Your task to perform on an android device: Show me recent news Image 0: 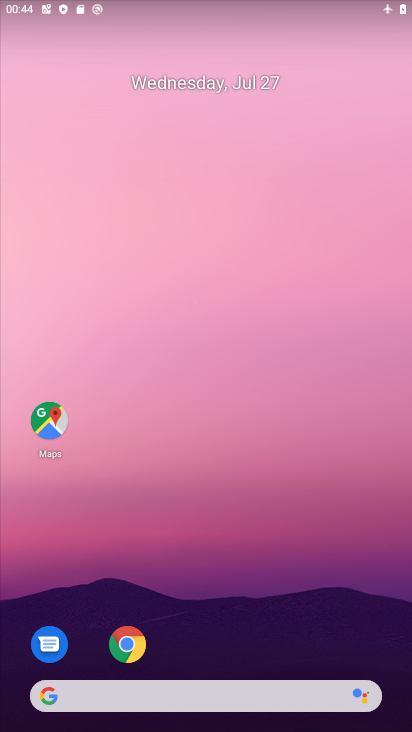
Step 0: drag from (192, 471) to (218, 263)
Your task to perform on an android device: Show me recent news Image 1: 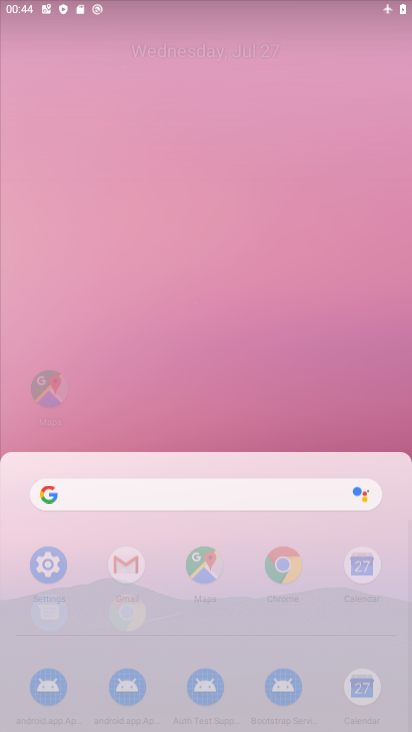
Step 1: click (289, 211)
Your task to perform on an android device: Show me recent news Image 2: 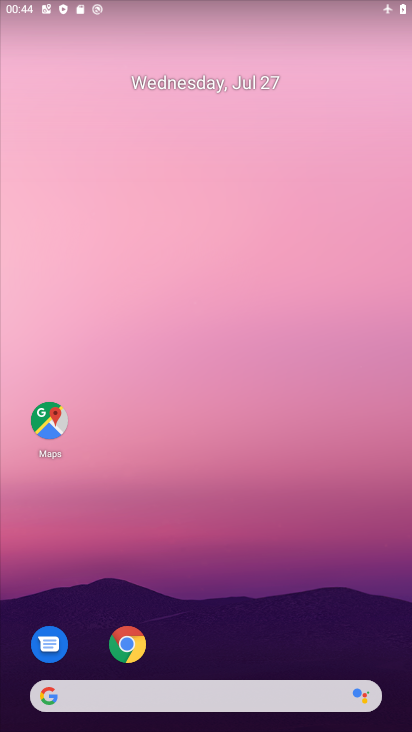
Step 2: click (315, 238)
Your task to perform on an android device: Show me recent news Image 3: 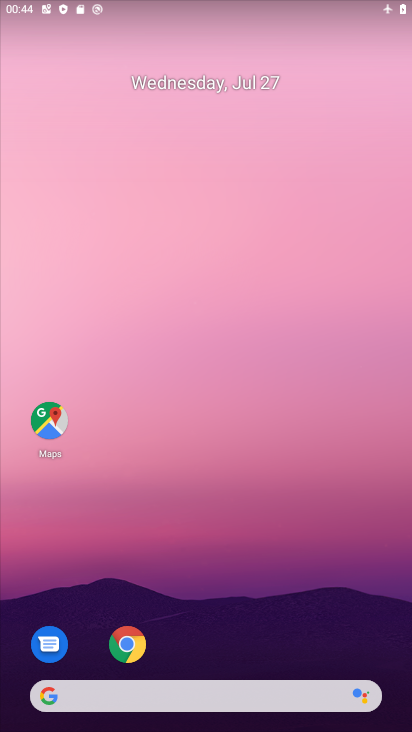
Step 3: click (241, 262)
Your task to perform on an android device: Show me recent news Image 4: 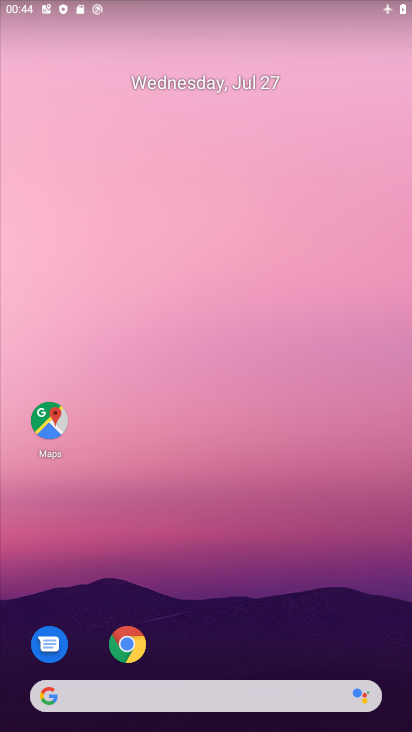
Step 4: click (216, 76)
Your task to perform on an android device: Show me recent news Image 5: 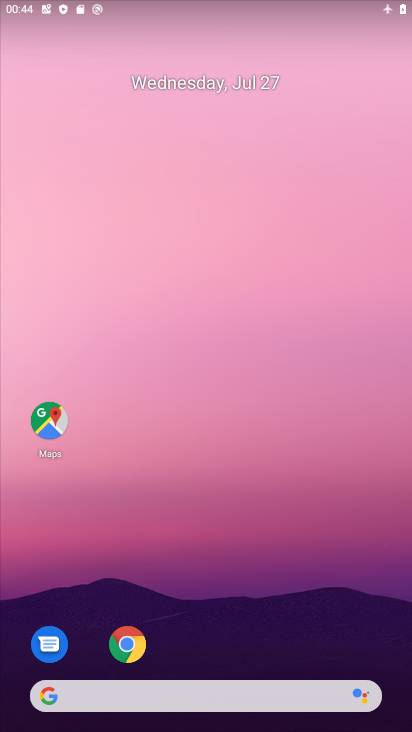
Step 5: drag from (202, 268) to (202, 183)
Your task to perform on an android device: Show me recent news Image 6: 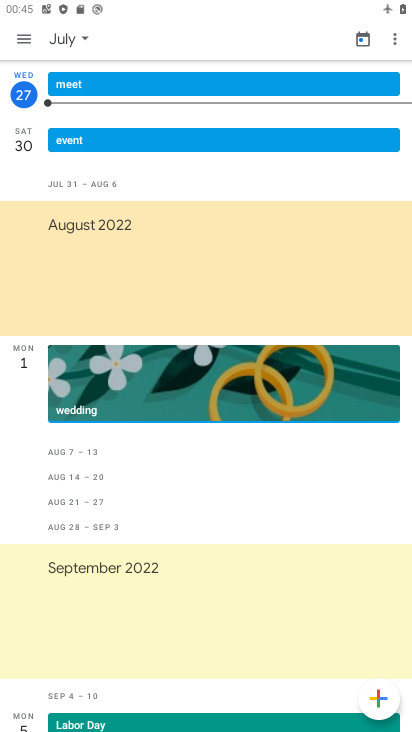
Step 6: press back button
Your task to perform on an android device: Show me recent news Image 7: 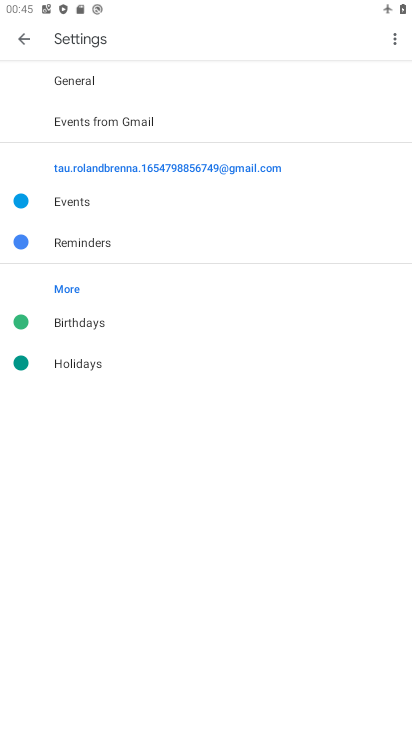
Step 7: press back button
Your task to perform on an android device: Show me recent news Image 8: 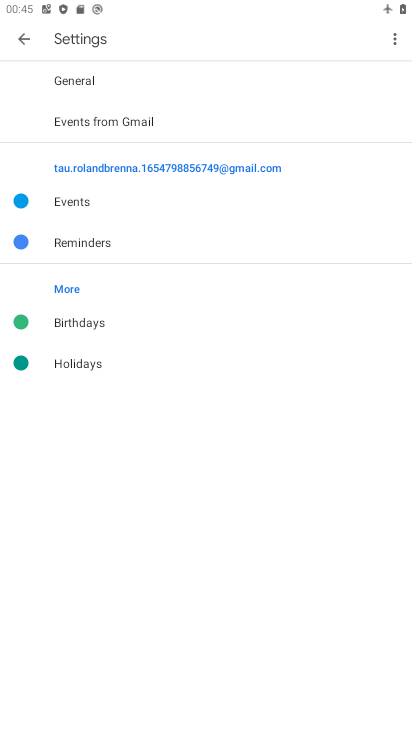
Step 8: press home button
Your task to perform on an android device: Show me recent news Image 9: 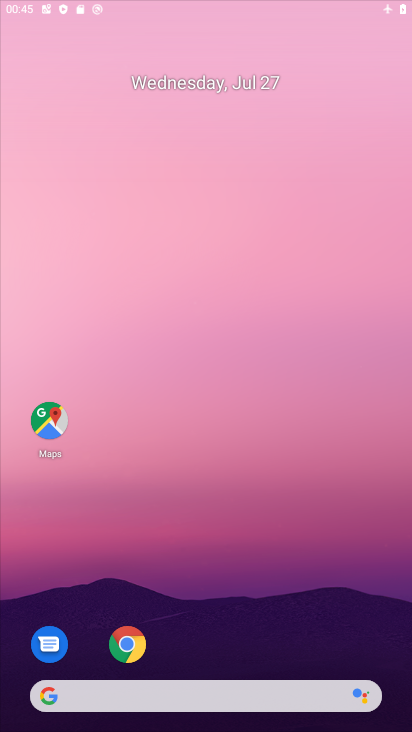
Step 9: press home button
Your task to perform on an android device: Show me recent news Image 10: 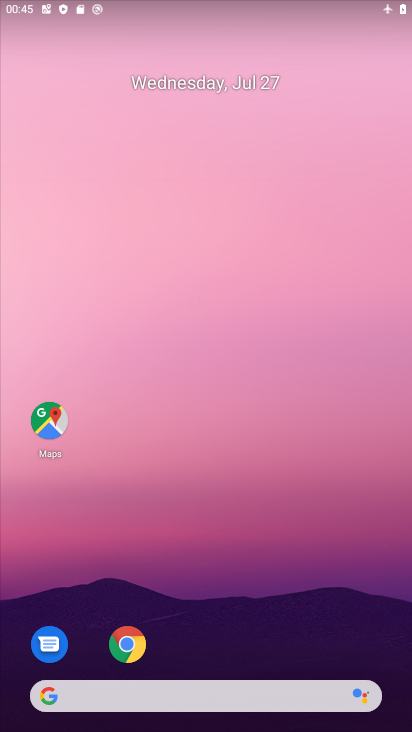
Step 10: press back button
Your task to perform on an android device: Show me recent news Image 11: 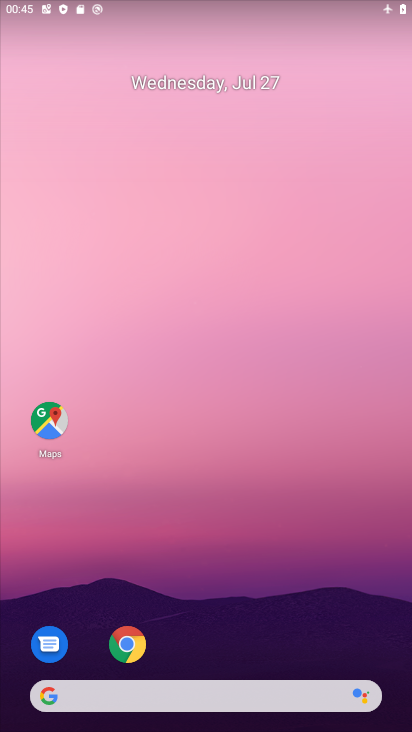
Step 11: drag from (273, 658) to (259, 99)
Your task to perform on an android device: Show me recent news Image 12: 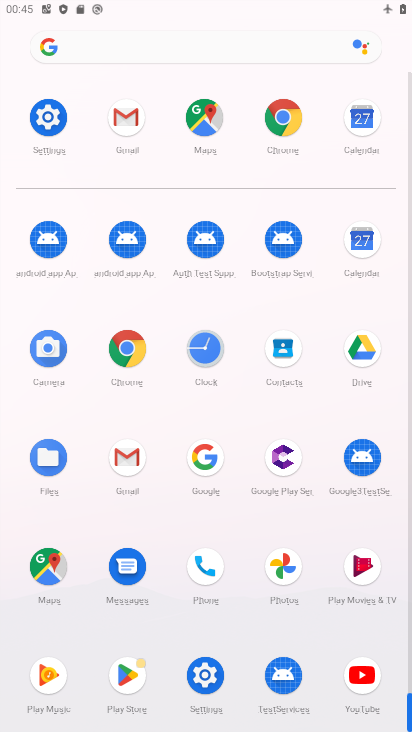
Step 12: drag from (190, 412) to (146, 21)
Your task to perform on an android device: Show me recent news Image 13: 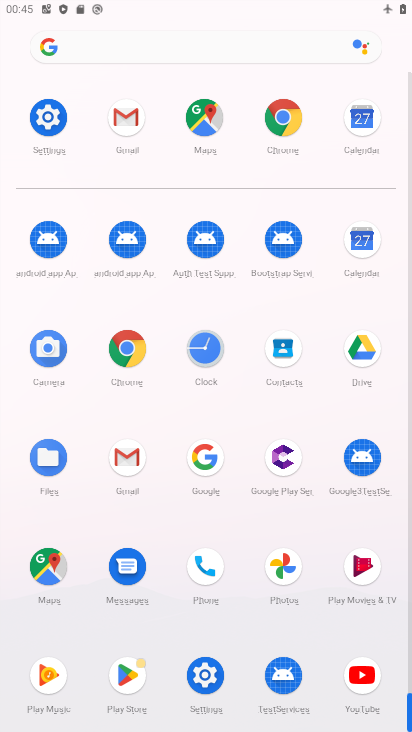
Step 13: click (284, 128)
Your task to perform on an android device: Show me recent news Image 14: 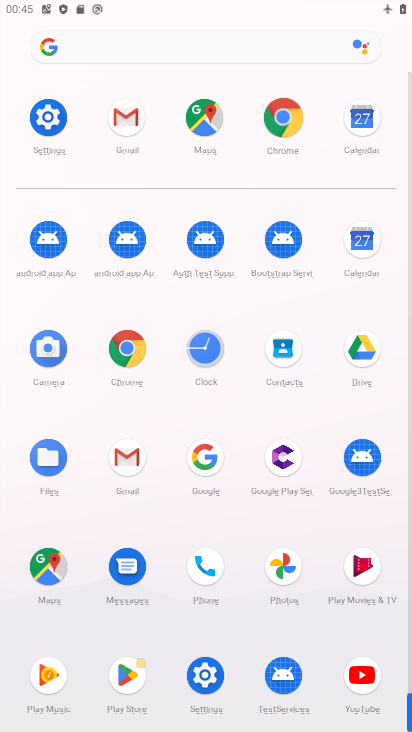
Step 14: click (286, 127)
Your task to perform on an android device: Show me recent news Image 15: 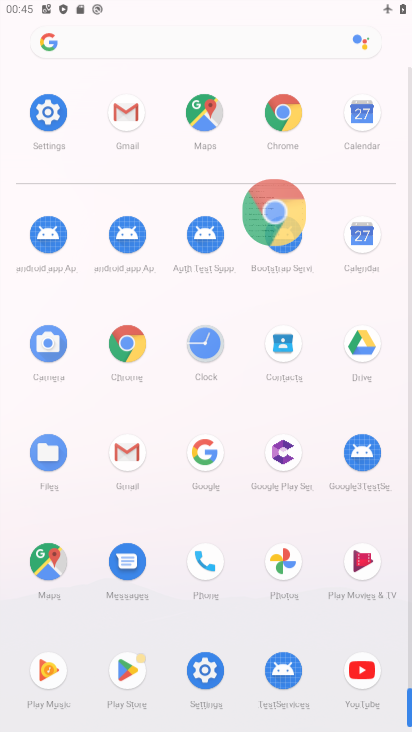
Step 15: click (286, 127)
Your task to perform on an android device: Show me recent news Image 16: 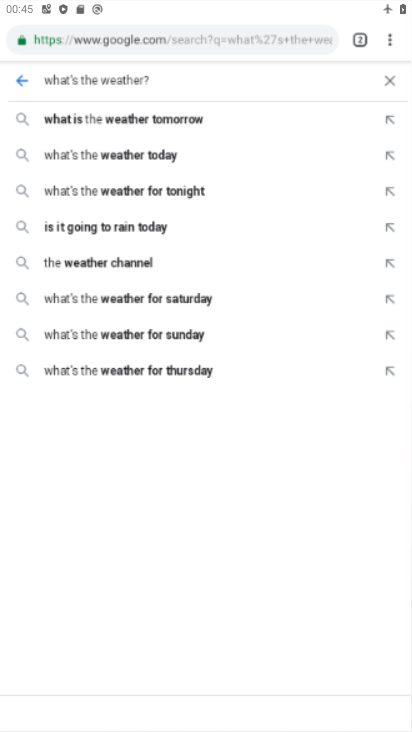
Step 16: click (286, 127)
Your task to perform on an android device: Show me recent news Image 17: 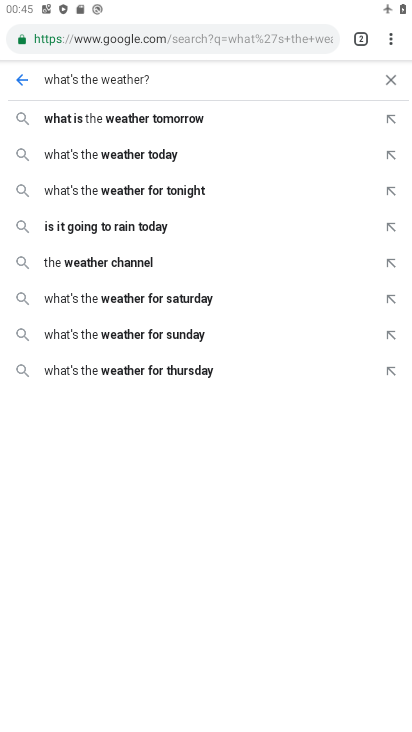
Step 17: click (113, 77)
Your task to perform on an android device: Show me recent news Image 18: 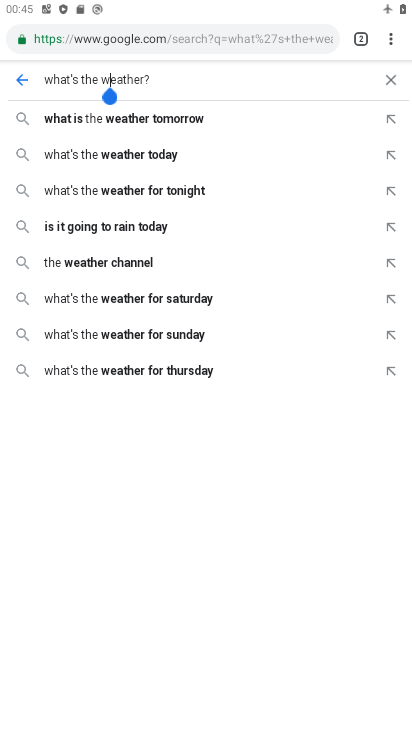
Step 18: click (193, 123)
Your task to perform on an android device: Show me recent news Image 19: 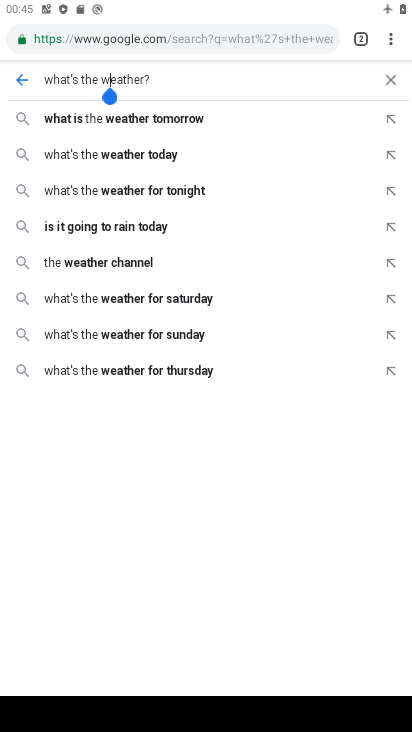
Step 19: click (193, 123)
Your task to perform on an android device: Show me recent news Image 20: 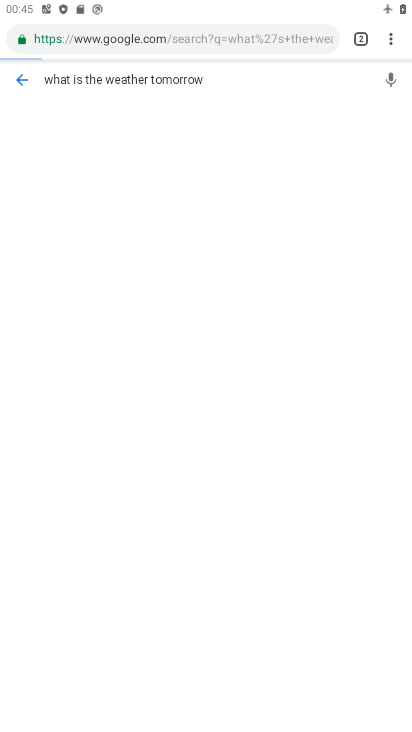
Step 20: click (196, 121)
Your task to perform on an android device: Show me recent news Image 21: 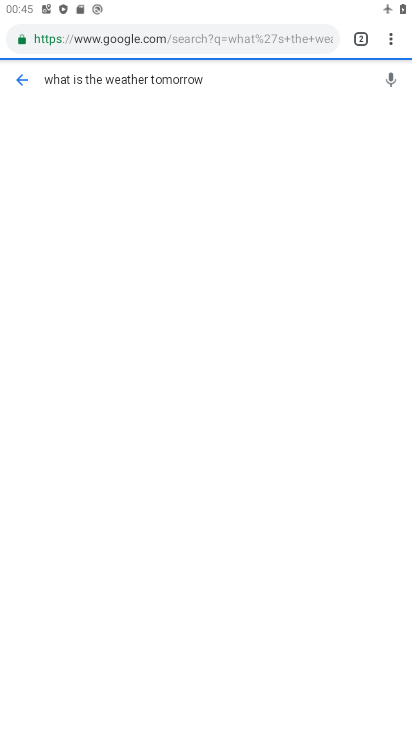
Step 21: click (197, 121)
Your task to perform on an android device: Show me recent news Image 22: 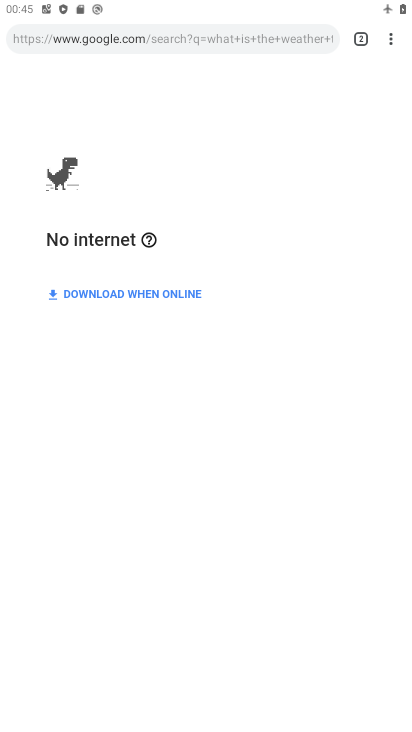
Step 22: task complete